Your task to perform on an android device: Show me recent news Image 0: 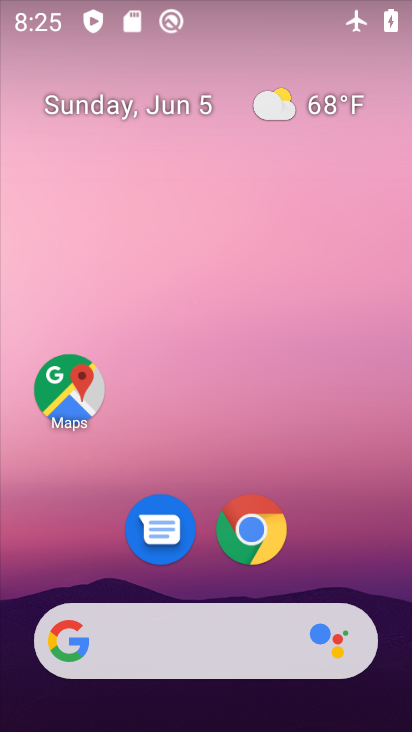
Step 0: click (234, 642)
Your task to perform on an android device: Show me recent news Image 1: 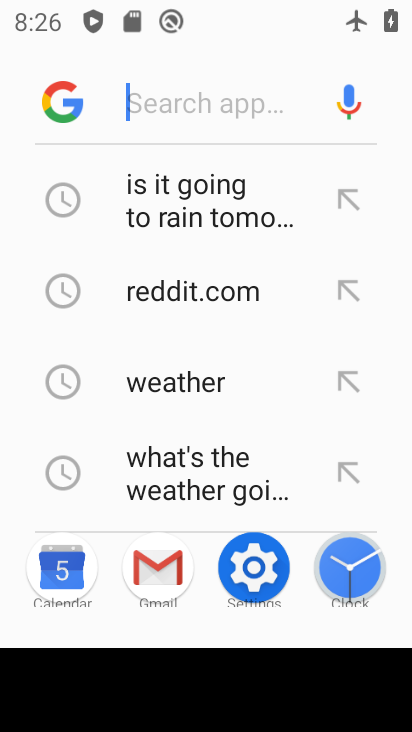
Step 1: type "recent news"
Your task to perform on an android device: Show me recent news Image 2: 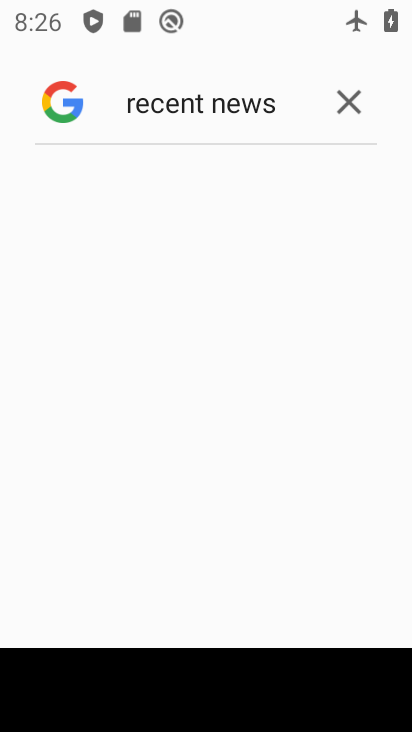
Step 2: task complete